Your task to perform on an android device: change your default location settings in chrome Image 0: 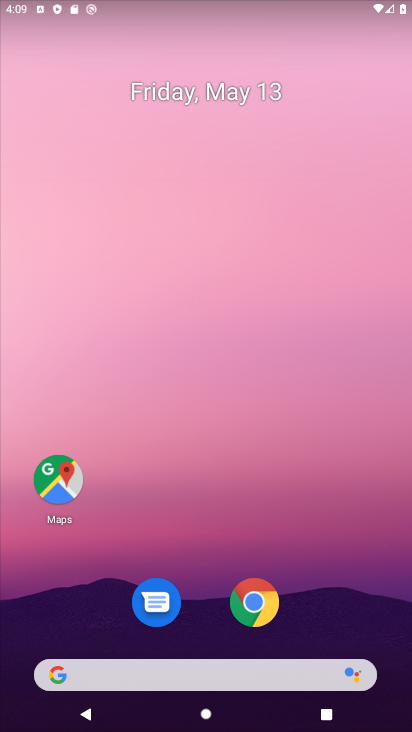
Step 0: click (240, 608)
Your task to perform on an android device: change your default location settings in chrome Image 1: 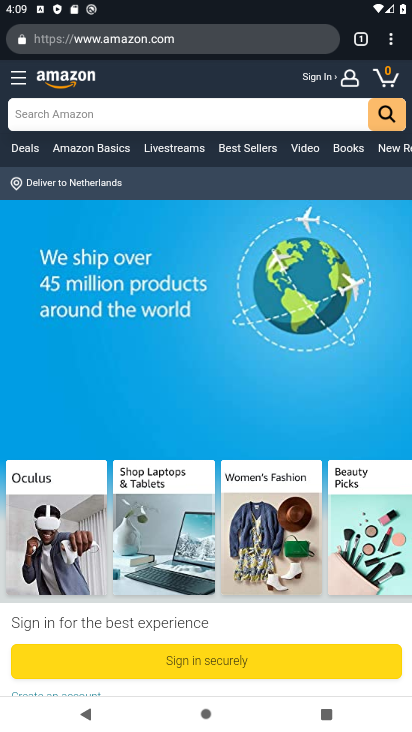
Step 1: click (386, 39)
Your task to perform on an android device: change your default location settings in chrome Image 2: 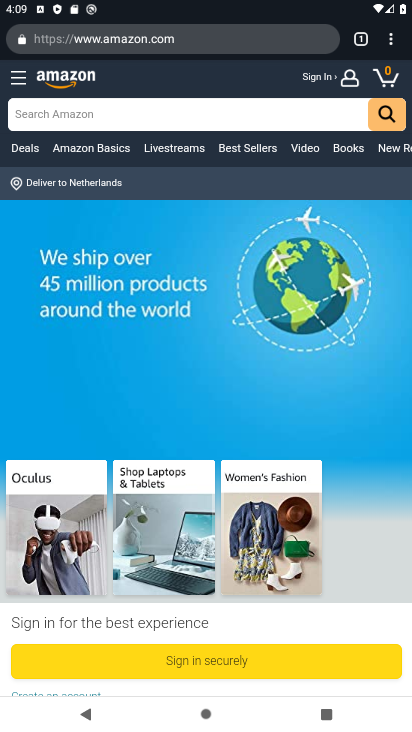
Step 2: click (388, 41)
Your task to perform on an android device: change your default location settings in chrome Image 3: 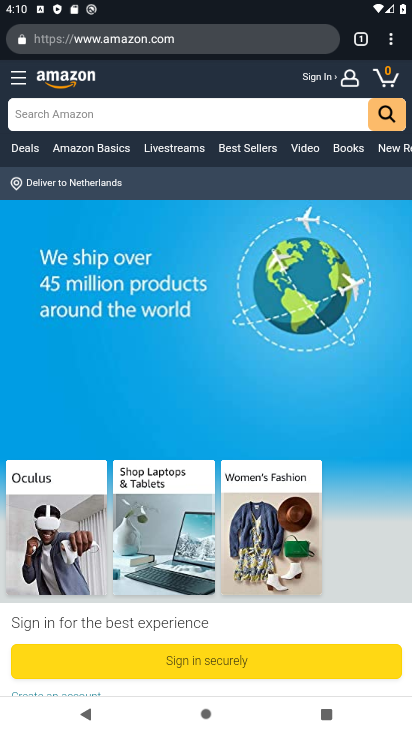
Step 3: click (390, 43)
Your task to perform on an android device: change your default location settings in chrome Image 4: 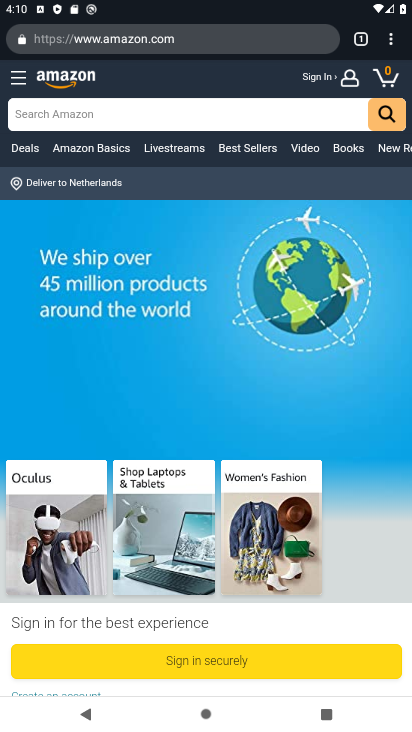
Step 4: click (393, 48)
Your task to perform on an android device: change your default location settings in chrome Image 5: 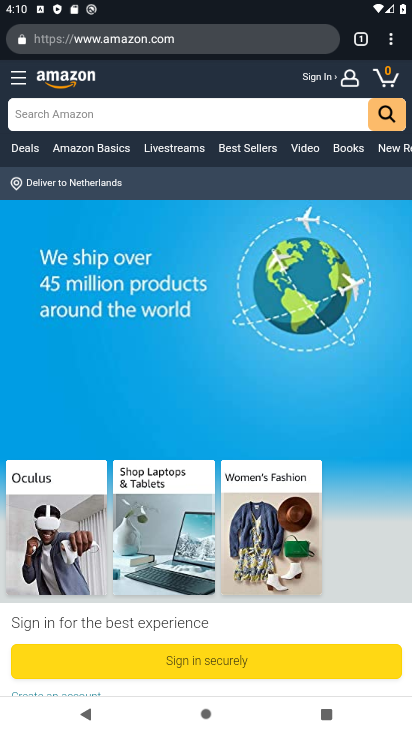
Step 5: click (393, 48)
Your task to perform on an android device: change your default location settings in chrome Image 6: 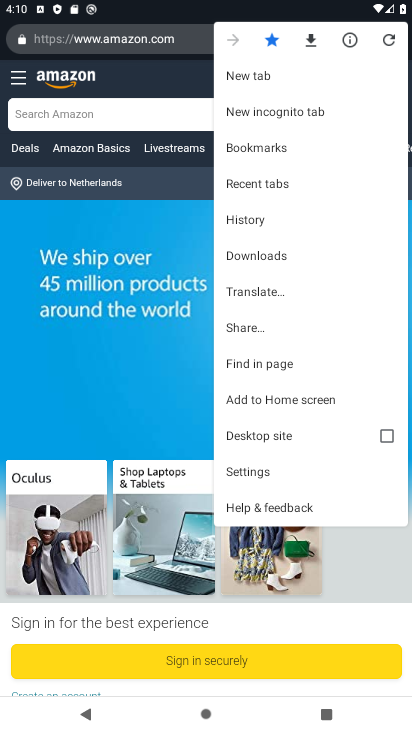
Step 6: click (251, 470)
Your task to perform on an android device: change your default location settings in chrome Image 7: 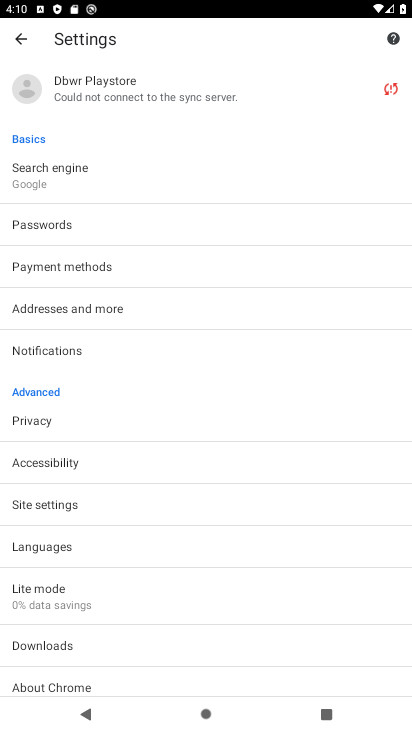
Step 7: click (45, 504)
Your task to perform on an android device: change your default location settings in chrome Image 8: 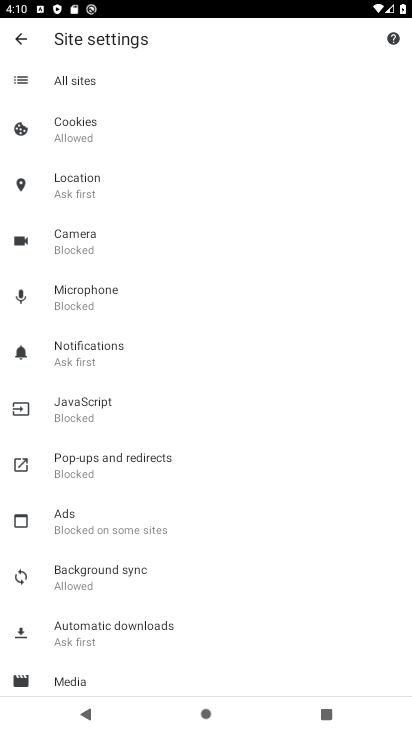
Step 8: click (68, 188)
Your task to perform on an android device: change your default location settings in chrome Image 9: 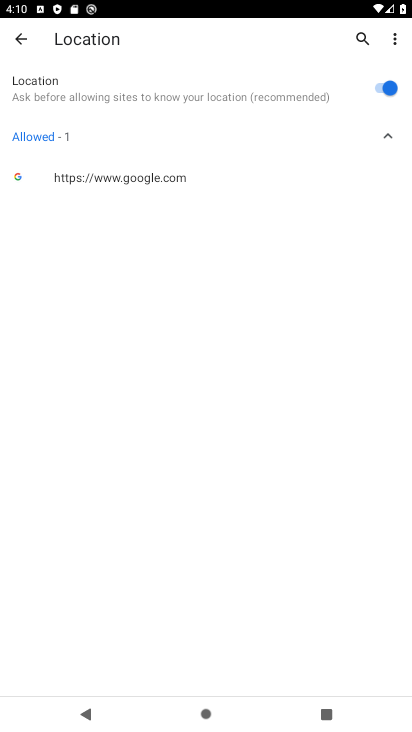
Step 9: click (379, 90)
Your task to perform on an android device: change your default location settings in chrome Image 10: 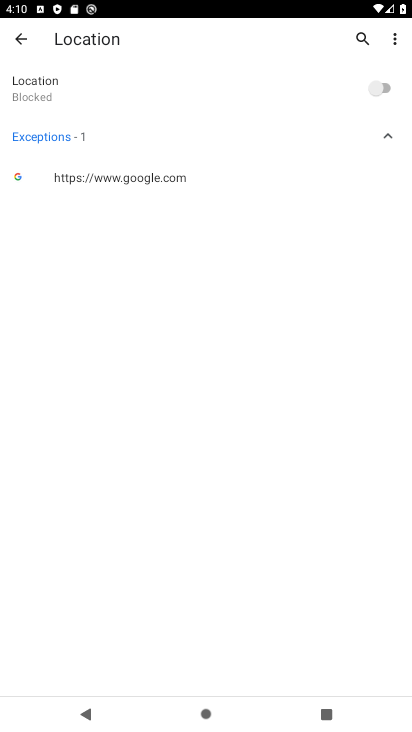
Step 10: task complete